Your task to perform on an android device: What's the news in Malaysia? Image 0: 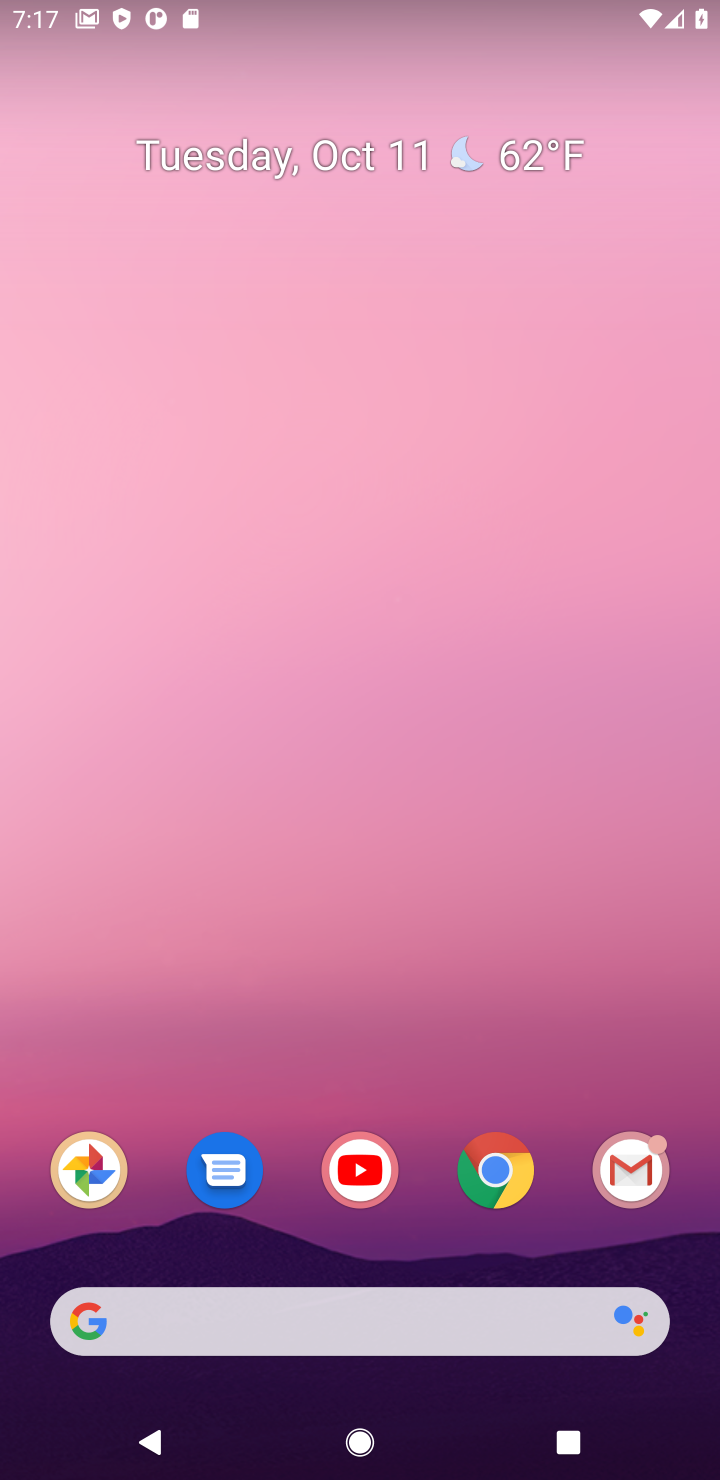
Step 0: drag from (406, 1077) to (469, 440)
Your task to perform on an android device: What's the news in Malaysia? Image 1: 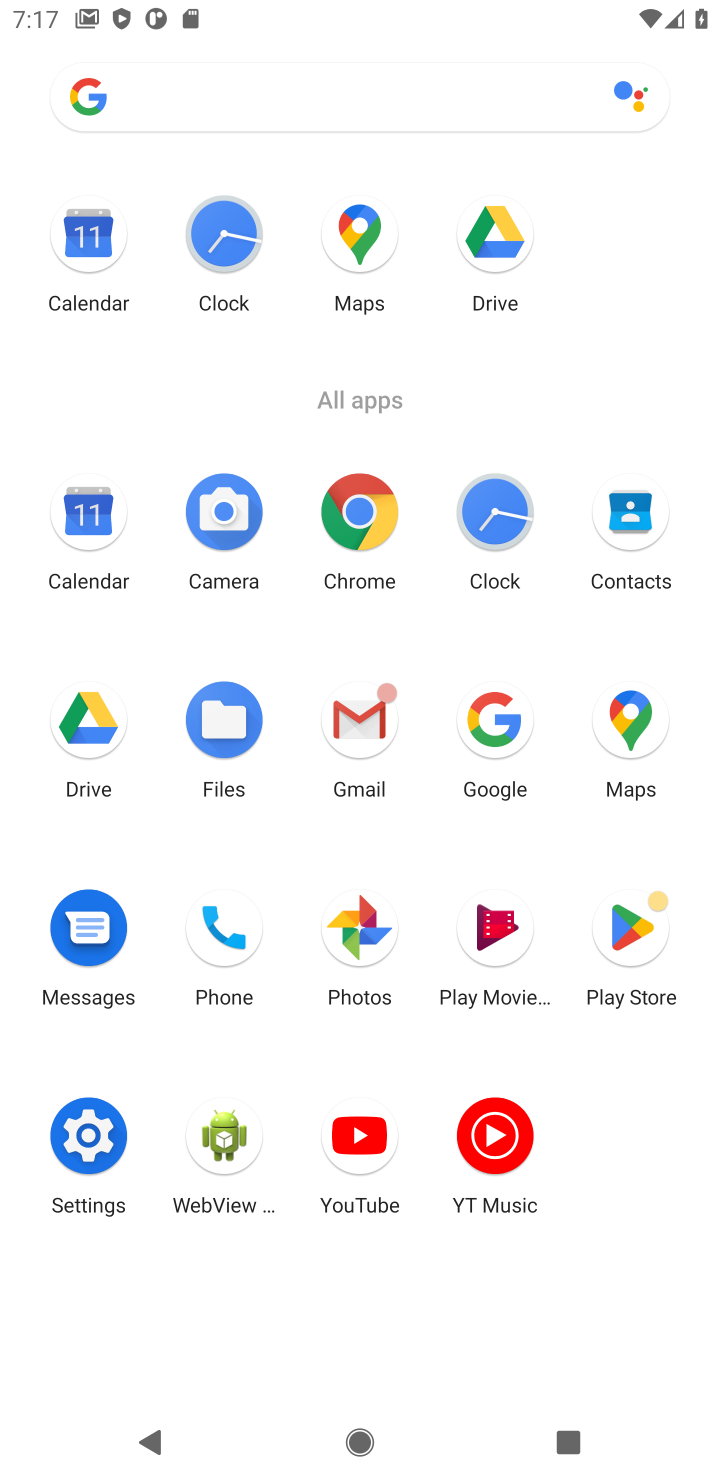
Step 1: click (487, 705)
Your task to perform on an android device: What's the news in Malaysia? Image 2: 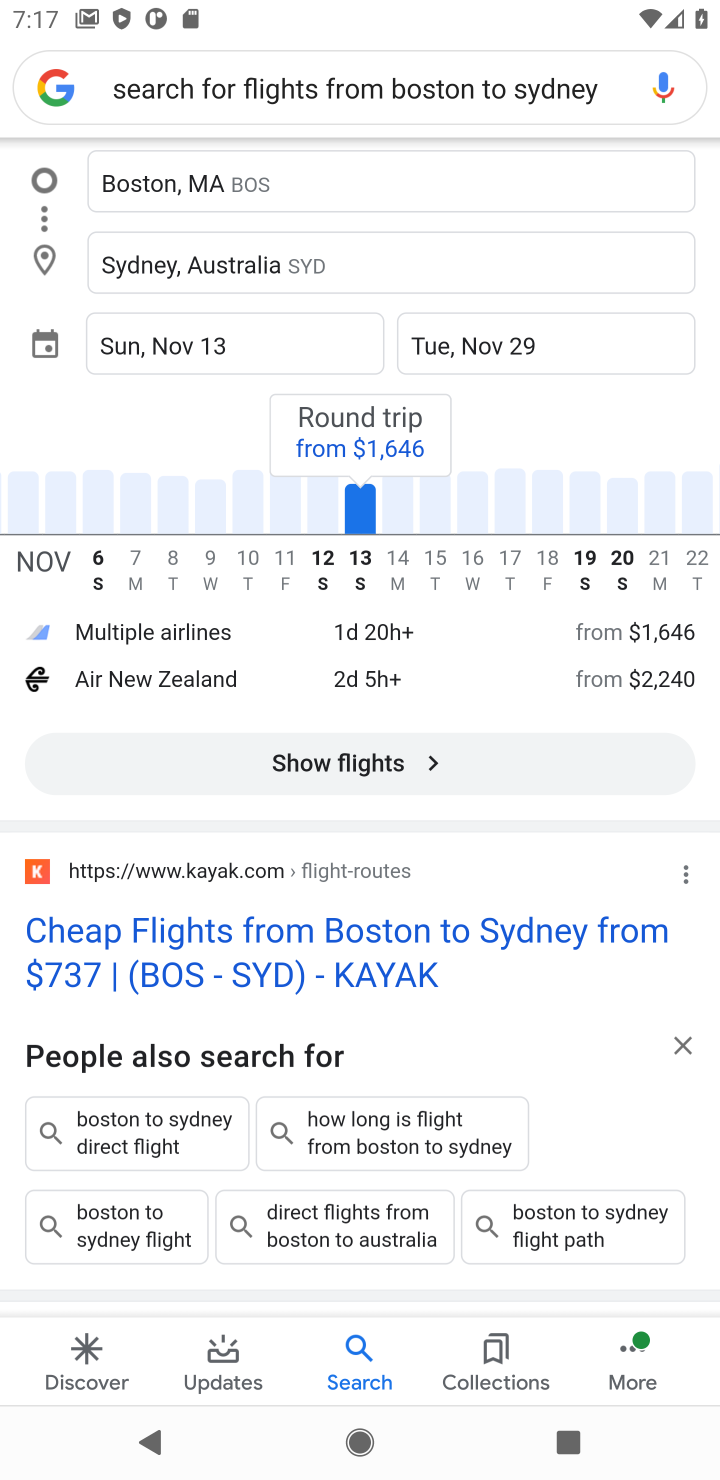
Step 2: drag from (238, 281) to (250, 1262)
Your task to perform on an android device: What's the news in Malaysia? Image 3: 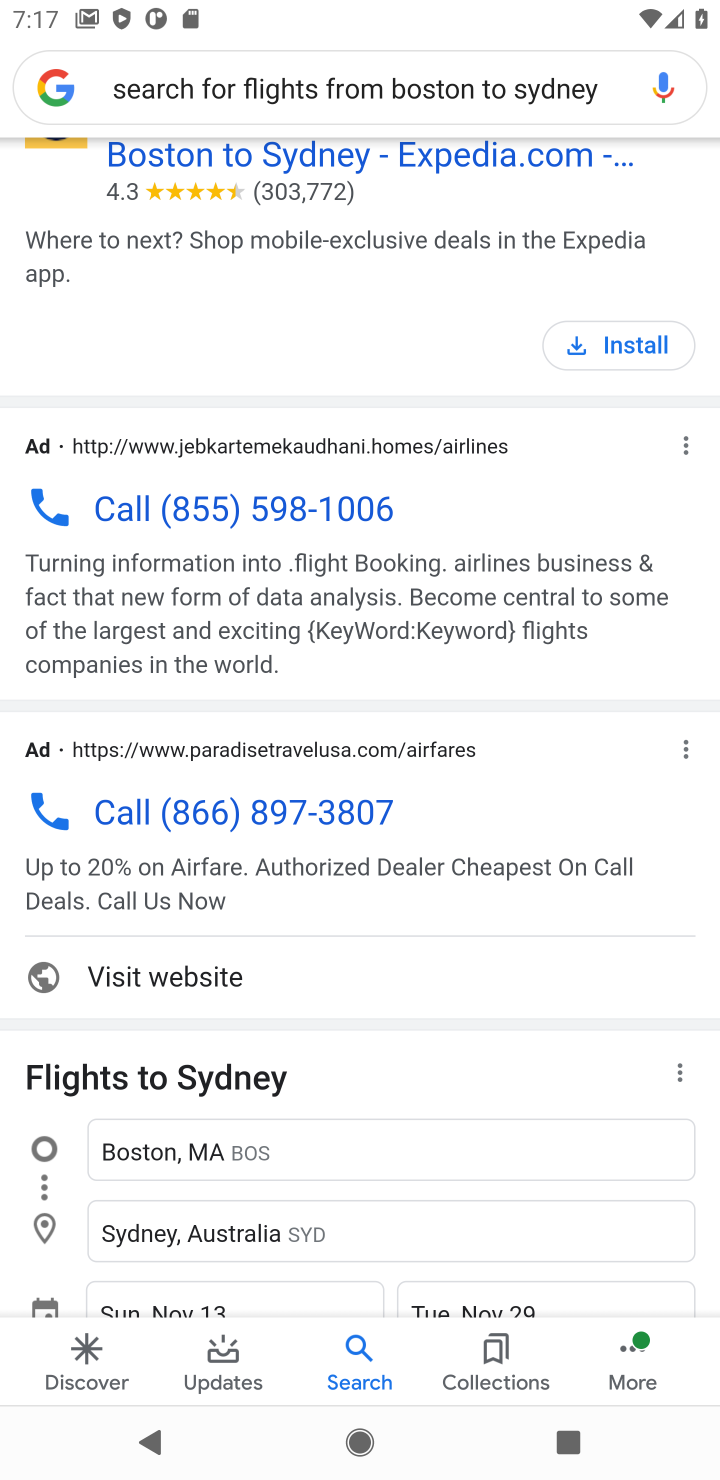
Step 3: click (278, 78)
Your task to perform on an android device: What's the news in Malaysia? Image 4: 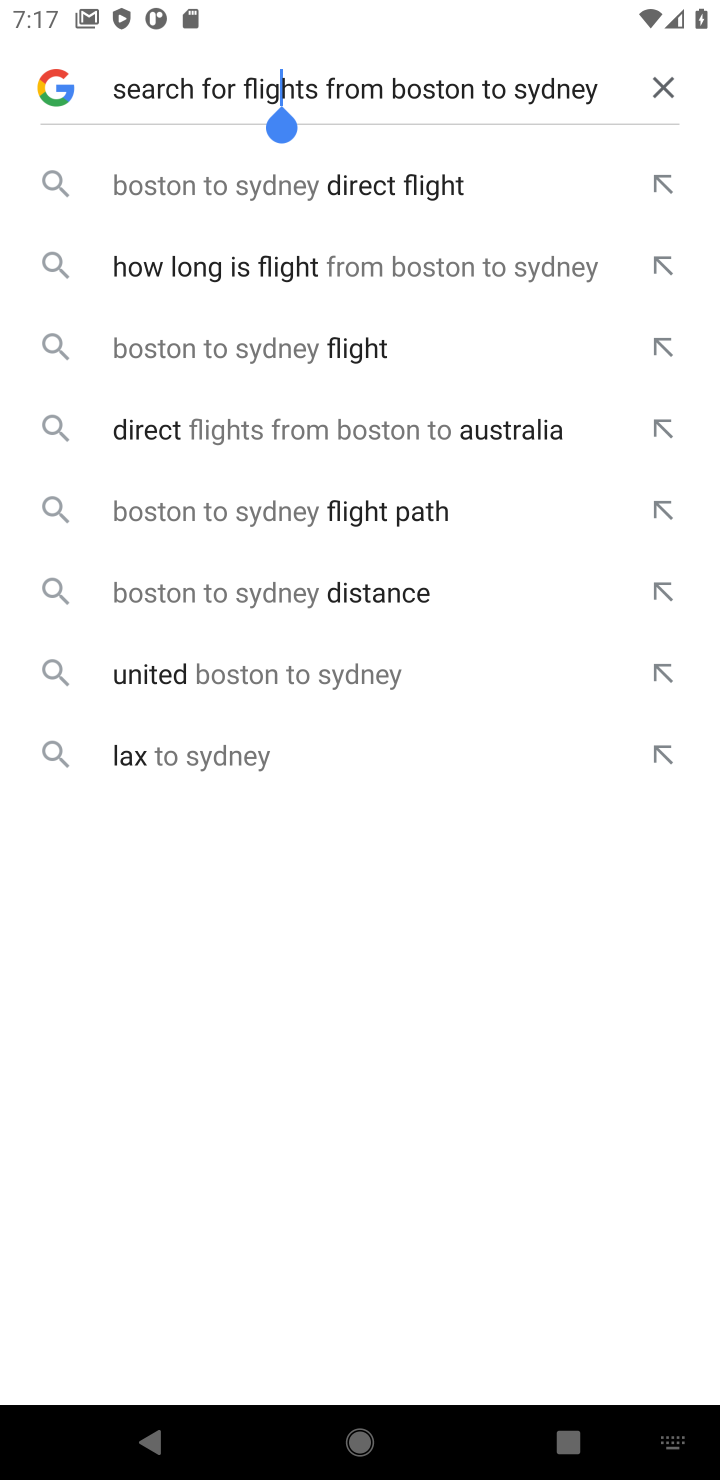
Step 4: click (632, 84)
Your task to perform on an android device: What's the news in Malaysia? Image 5: 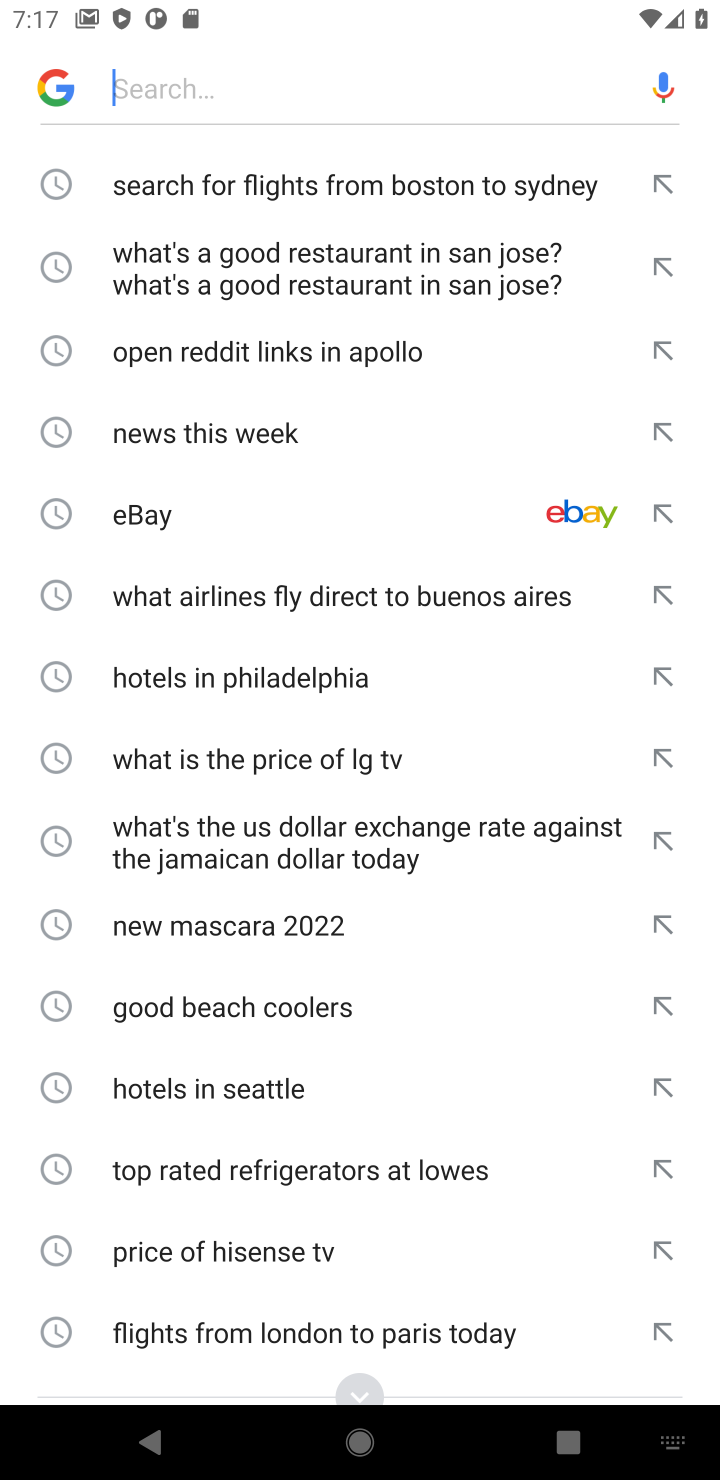
Step 5: click (277, 59)
Your task to perform on an android device: What's the news in Malaysia? Image 6: 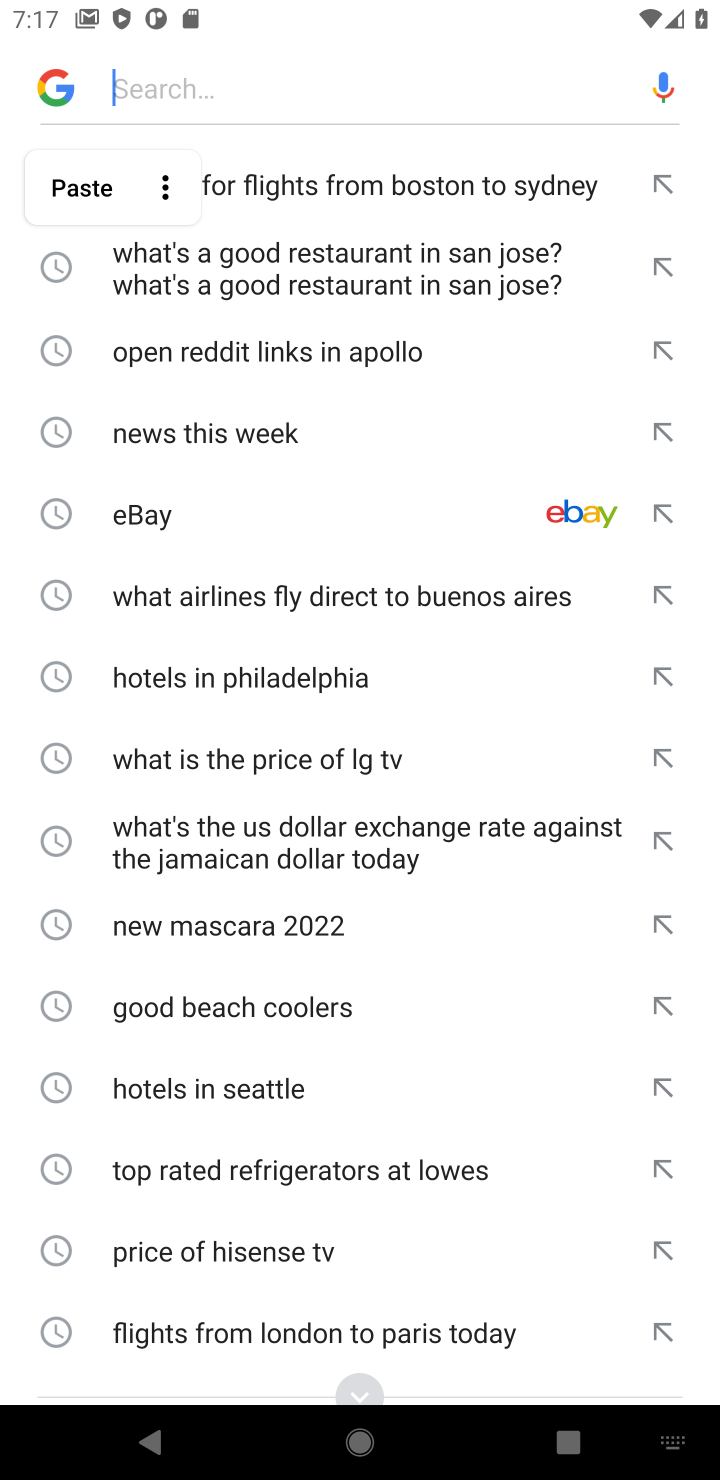
Step 6: type "What's the news in Malaysia "
Your task to perform on an android device: What's the news in Malaysia? Image 7: 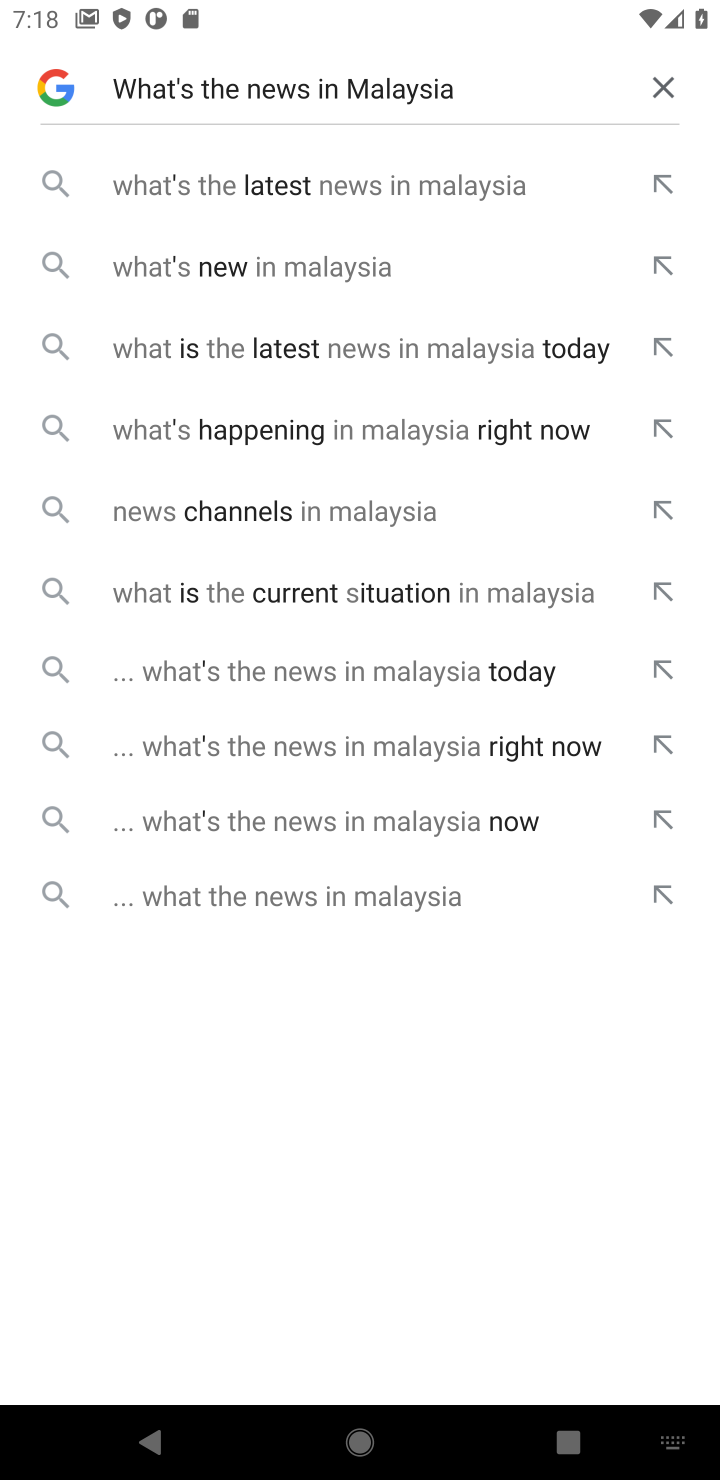
Step 7: click (329, 172)
Your task to perform on an android device: What's the news in Malaysia? Image 8: 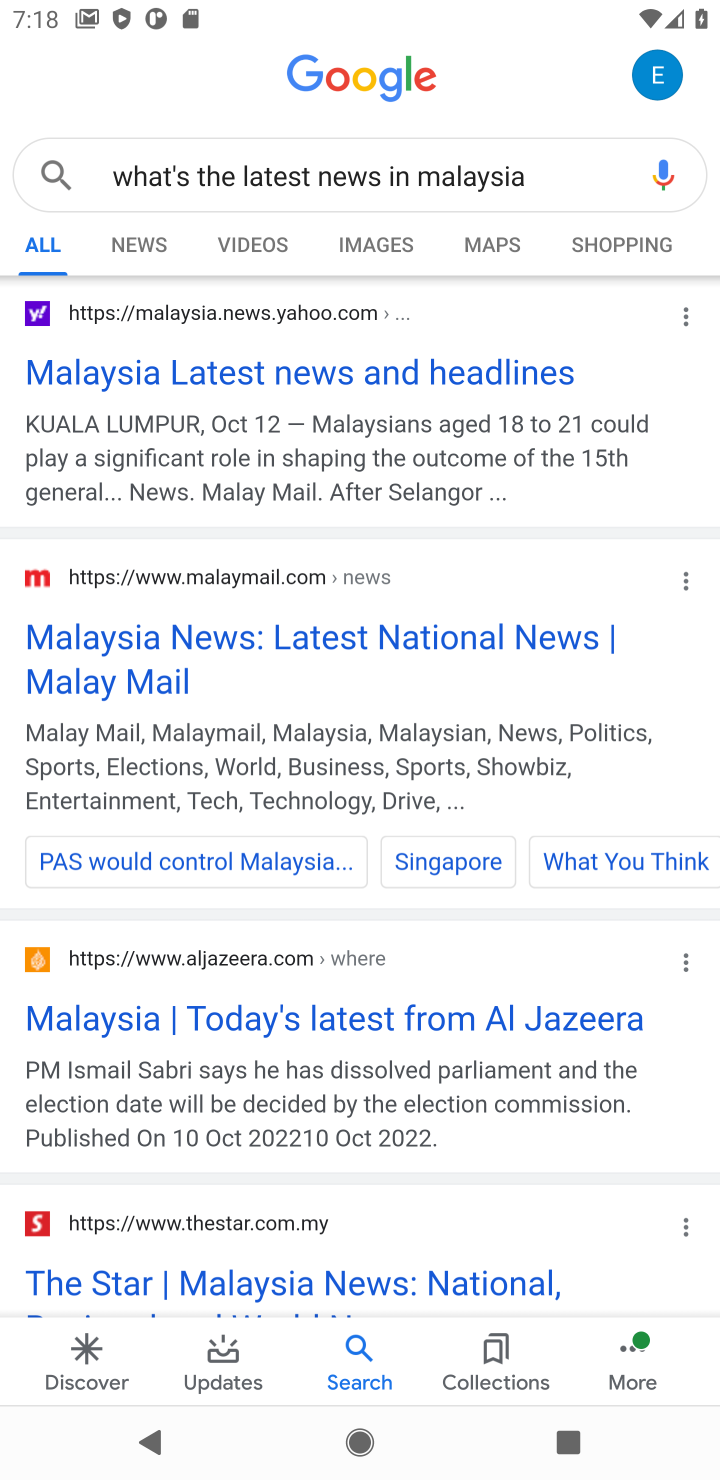
Step 8: click (252, 372)
Your task to perform on an android device: What's the news in Malaysia? Image 9: 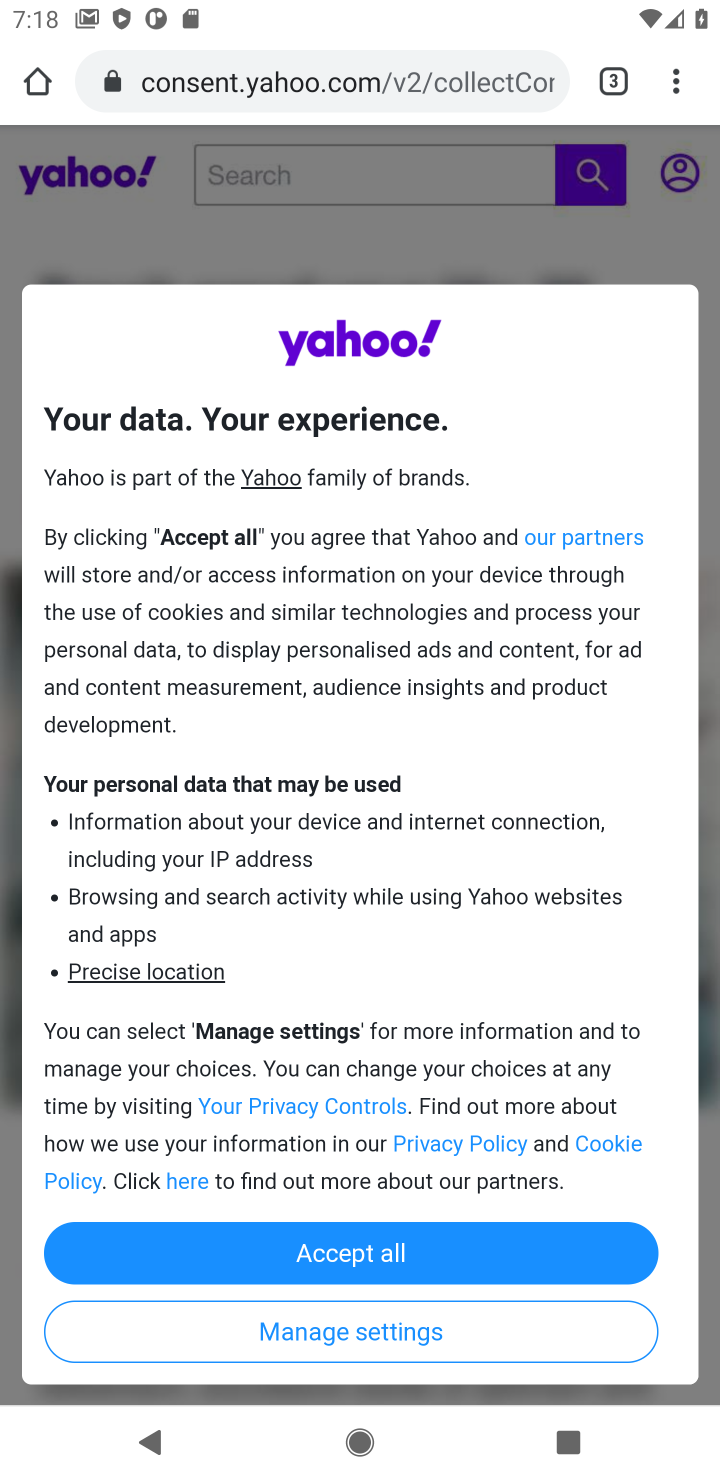
Step 9: click (382, 1245)
Your task to perform on an android device: What's the news in Malaysia? Image 10: 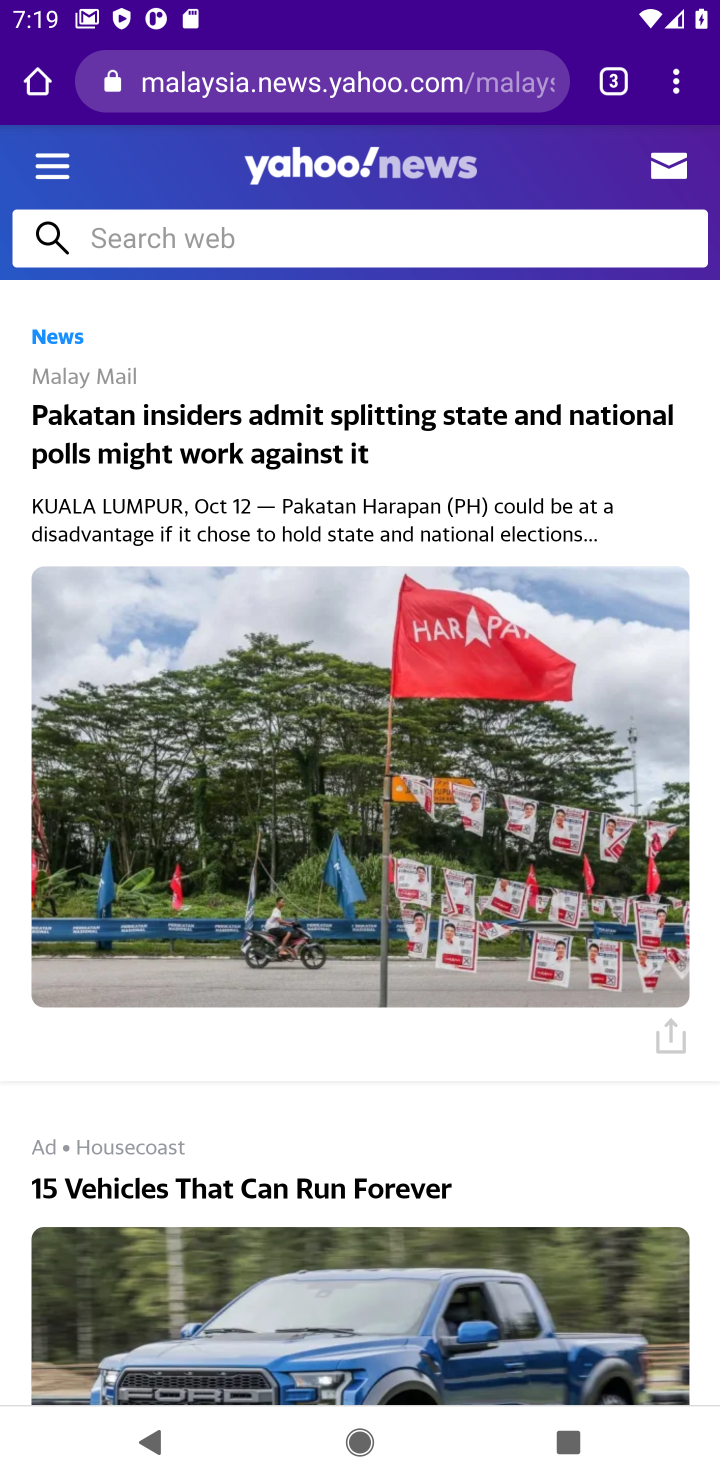
Step 10: task complete